Your task to perform on an android device: open device folders in google photos Image 0: 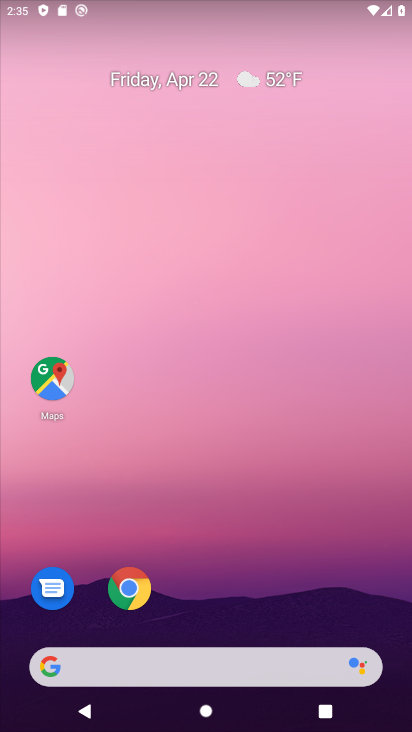
Step 0: drag from (332, 545) to (250, 22)
Your task to perform on an android device: open device folders in google photos Image 1: 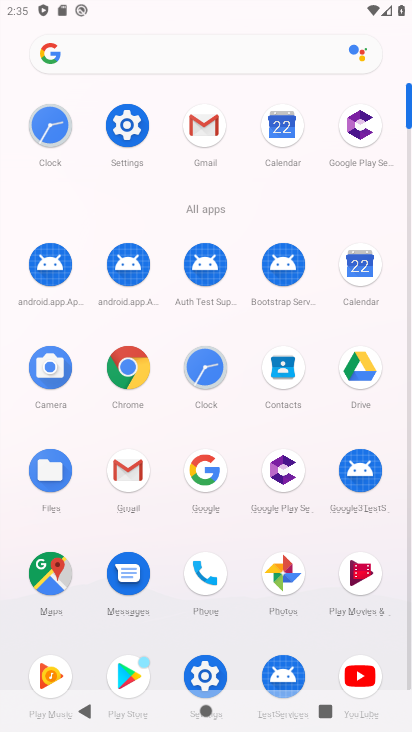
Step 1: click (285, 580)
Your task to perform on an android device: open device folders in google photos Image 2: 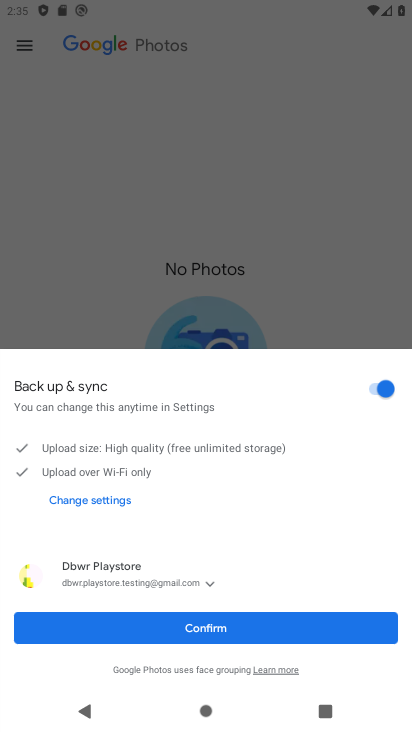
Step 2: click (248, 621)
Your task to perform on an android device: open device folders in google photos Image 3: 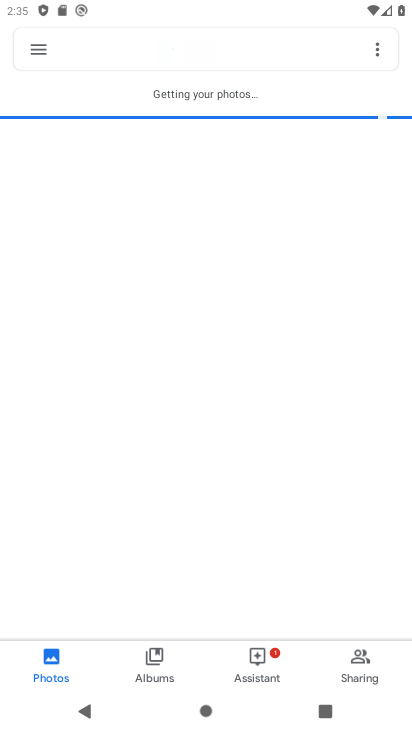
Step 3: click (34, 53)
Your task to perform on an android device: open device folders in google photos Image 4: 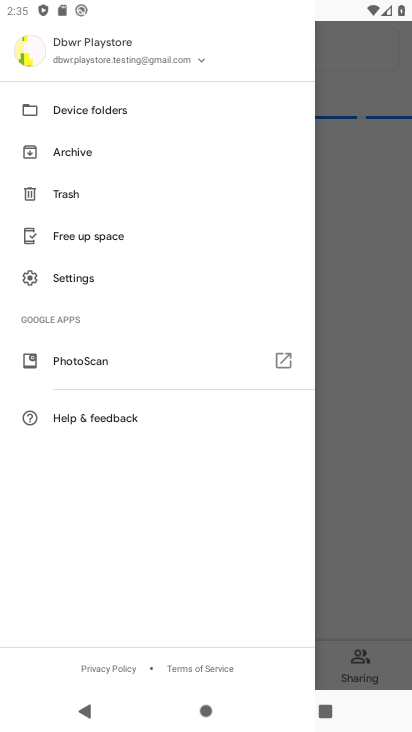
Step 4: click (61, 114)
Your task to perform on an android device: open device folders in google photos Image 5: 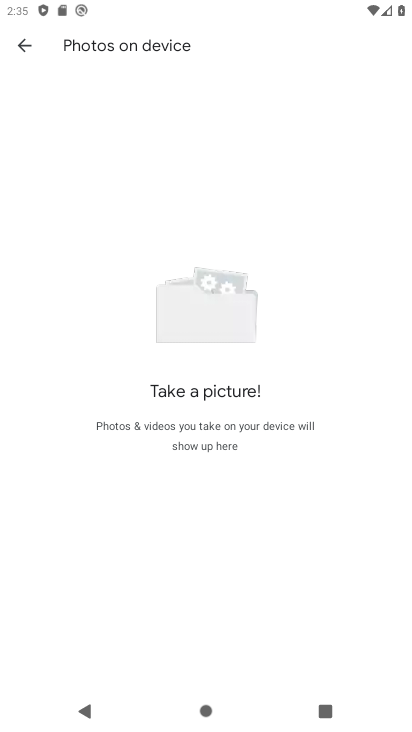
Step 5: task complete